Your task to perform on an android device: open a new tab in the chrome app Image 0: 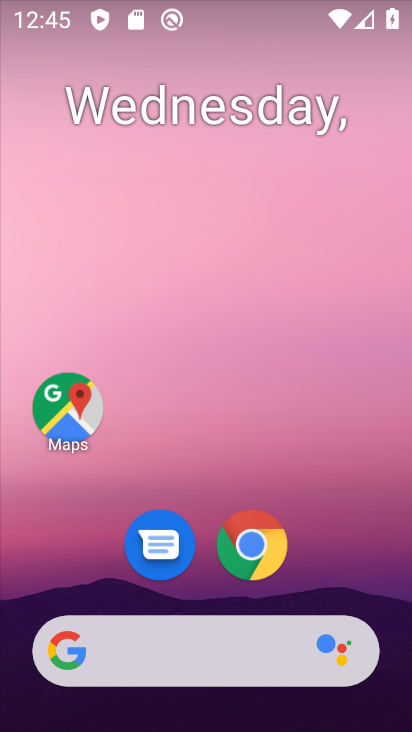
Step 0: drag from (319, 430) to (308, 89)
Your task to perform on an android device: open a new tab in the chrome app Image 1: 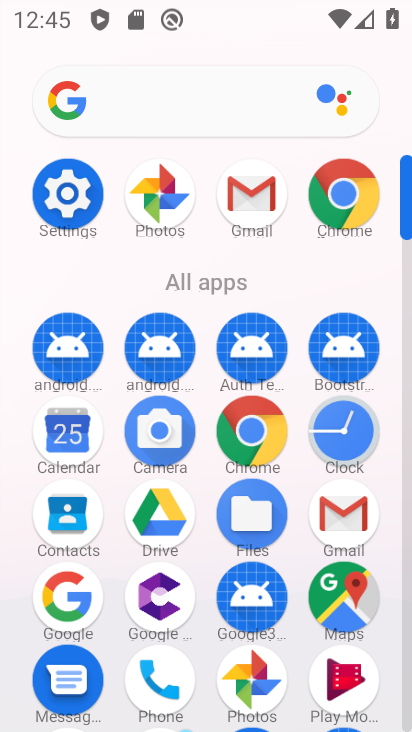
Step 1: click (250, 437)
Your task to perform on an android device: open a new tab in the chrome app Image 2: 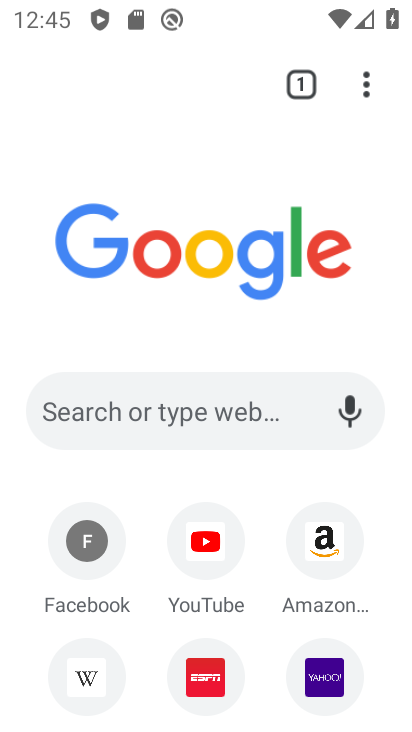
Step 2: click (366, 89)
Your task to perform on an android device: open a new tab in the chrome app Image 3: 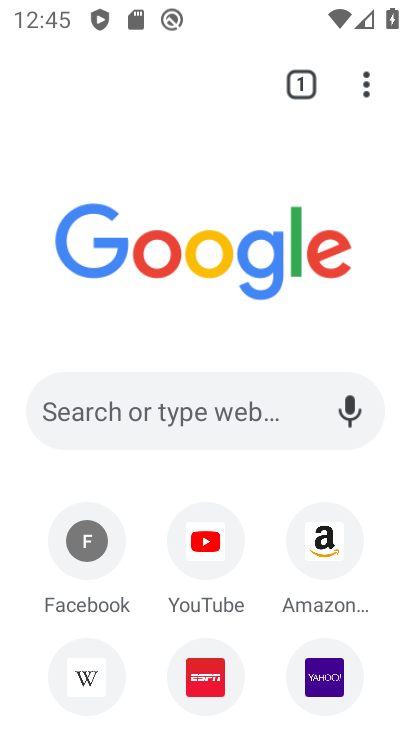
Step 3: task complete